Your task to perform on an android device: check out phone information Image 0: 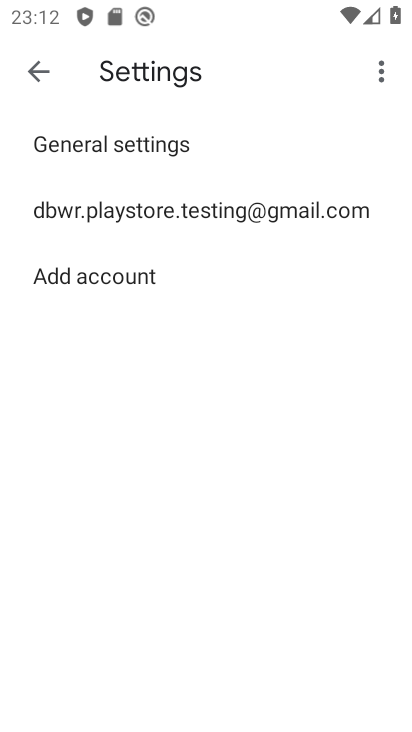
Step 0: press home button
Your task to perform on an android device: check out phone information Image 1: 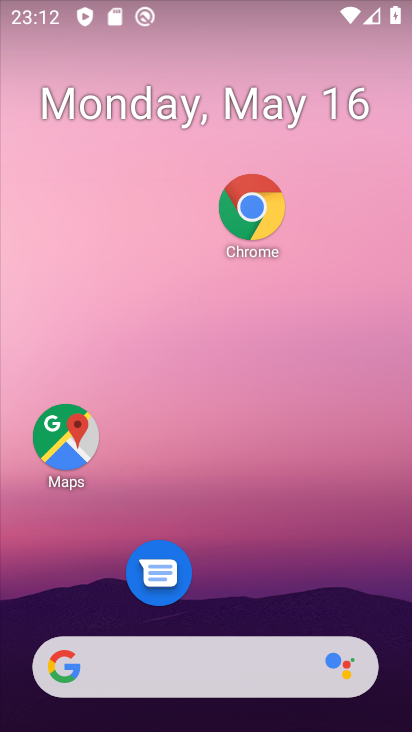
Step 1: drag from (233, 626) to (288, 146)
Your task to perform on an android device: check out phone information Image 2: 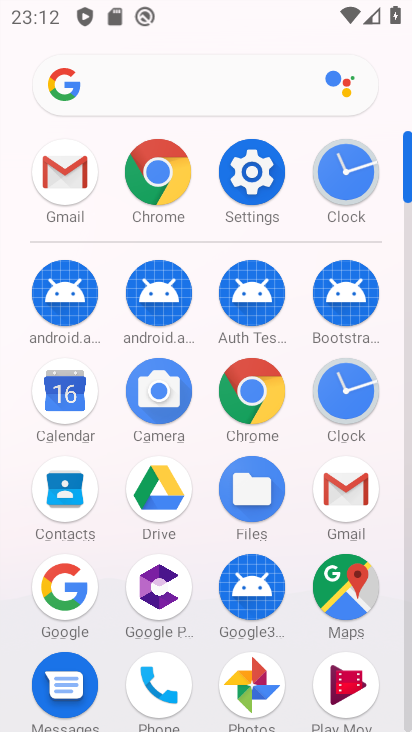
Step 2: drag from (303, 631) to (380, 129)
Your task to perform on an android device: check out phone information Image 3: 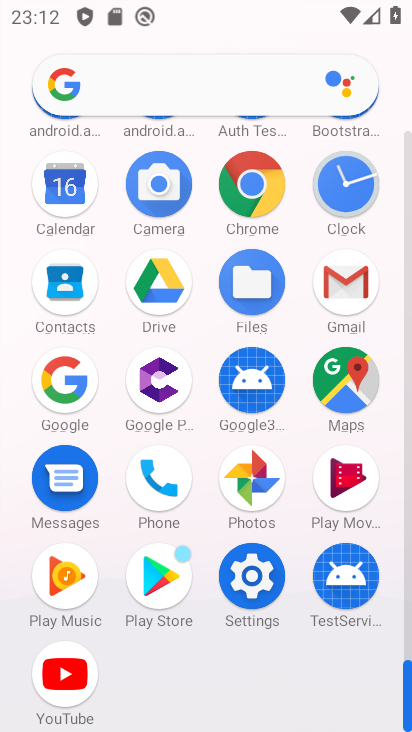
Step 3: click (262, 578)
Your task to perform on an android device: check out phone information Image 4: 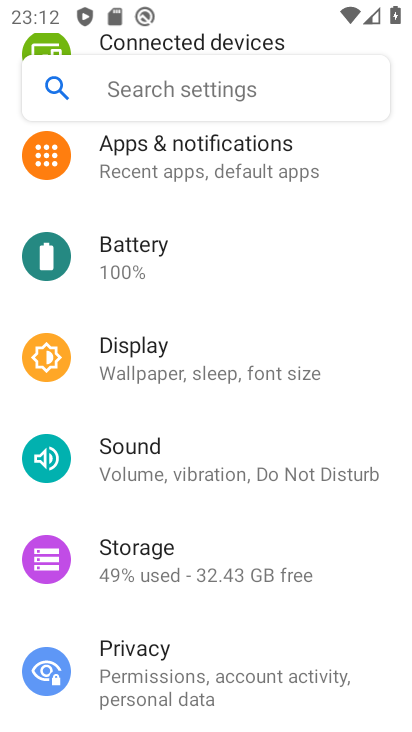
Step 4: drag from (260, 669) to (360, 148)
Your task to perform on an android device: check out phone information Image 5: 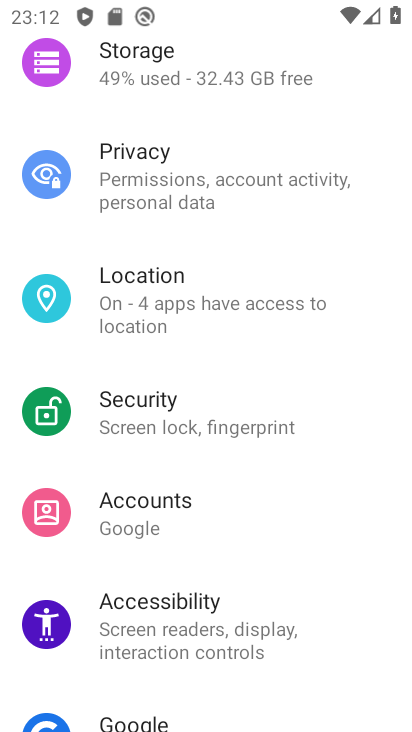
Step 5: drag from (276, 690) to (327, 255)
Your task to perform on an android device: check out phone information Image 6: 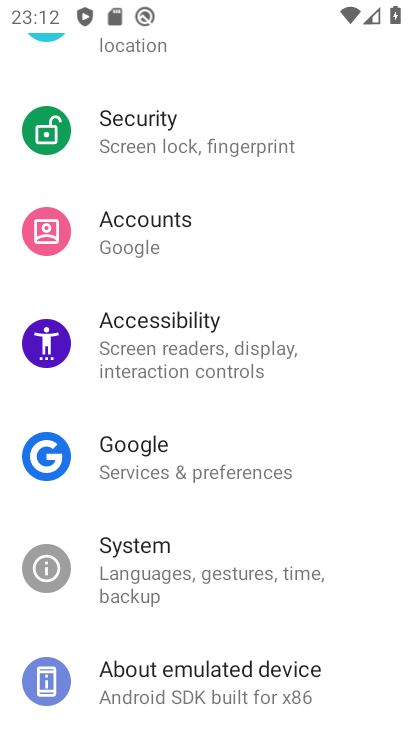
Step 6: click (279, 690)
Your task to perform on an android device: check out phone information Image 7: 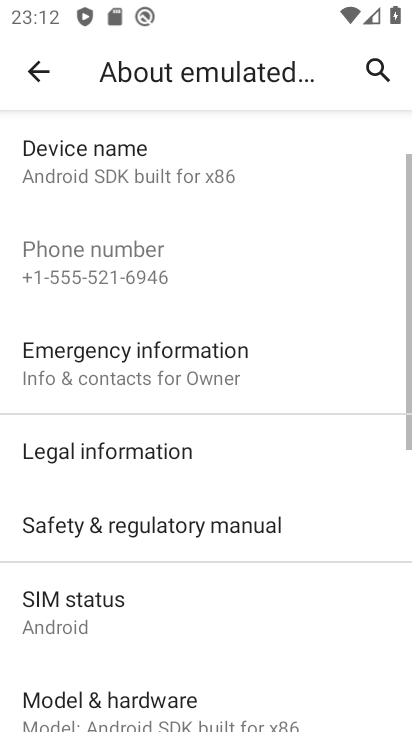
Step 7: task complete